Your task to perform on an android device: open app "Walmart Shopping & Grocery" (install if not already installed) and go to login screen Image 0: 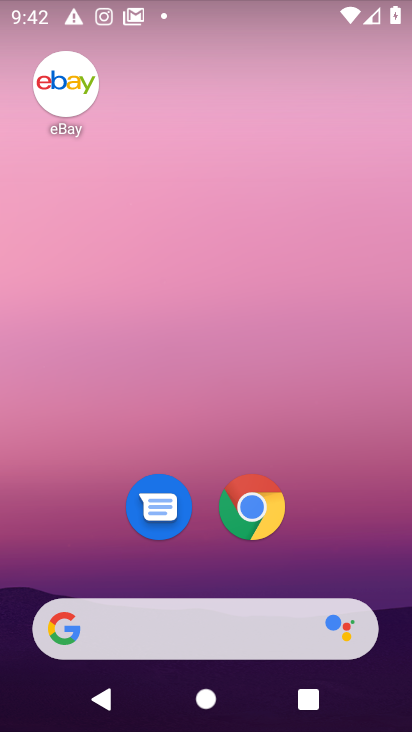
Step 0: drag from (210, 536) to (130, 14)
Your task to perform on an android device: open app "Walmart Shopping & Grocery" (install if not already installed) and go to login screen Image 1: 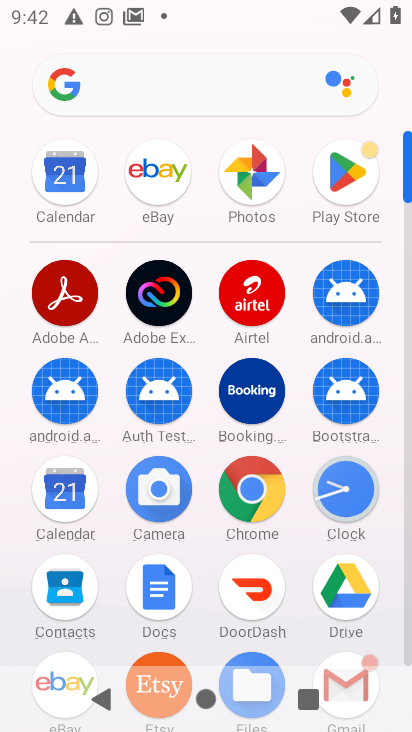
Step 1: click (342, 181)
Your task to perform on an android device: open app "Walmart Shopping & Grocery" (install if not already installed) and go to login screen Image 2: 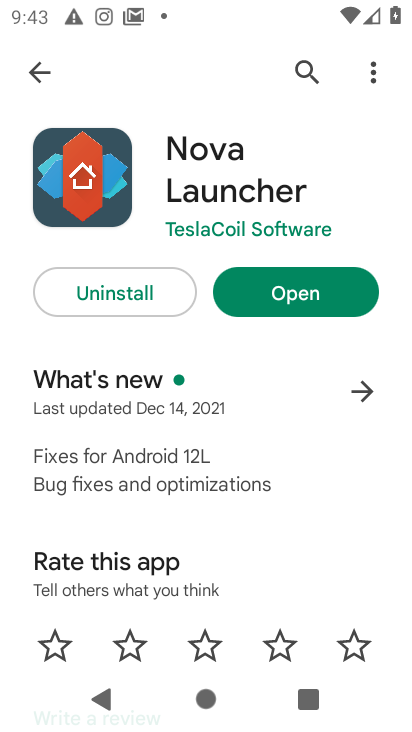
Step 2: click (37, 69)
Your task to perform on an android device: open app "Walmart Shopping & Grocery" (install if not already installed) and go to login screen Image 3: 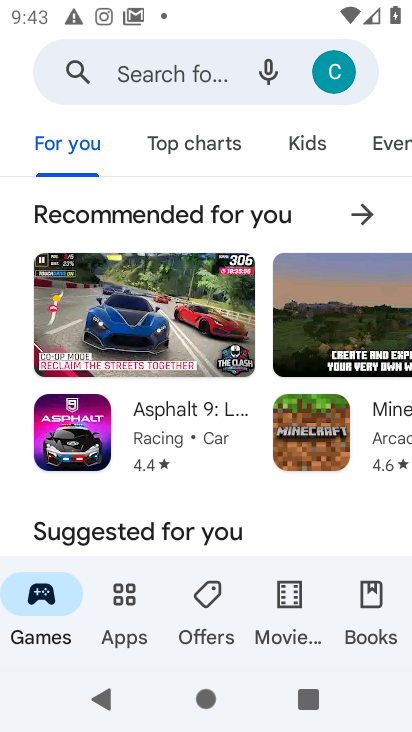
Step 3: click (156, 85)
Your task to perform on an android device: open app "Walmart Shopping & Grocery" (install if not already installed) and go to login screen Image 4: 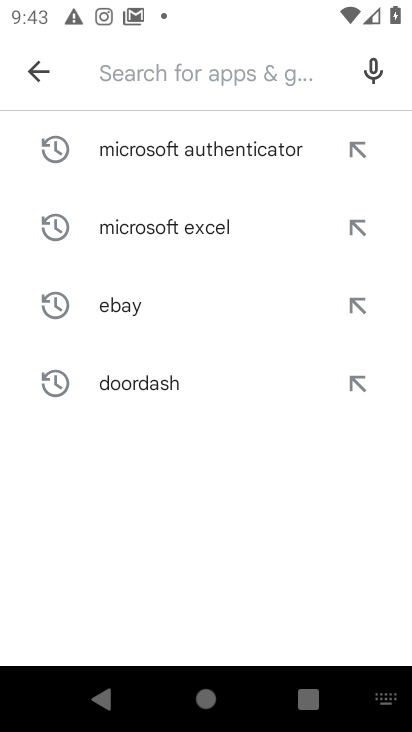
Step 4: type "Walmart Shopping & Grocery"
Your task to perform on an android device: open app "Walmart Shopping & Grocery" (install if not already installed) and go to login screen Image 5: 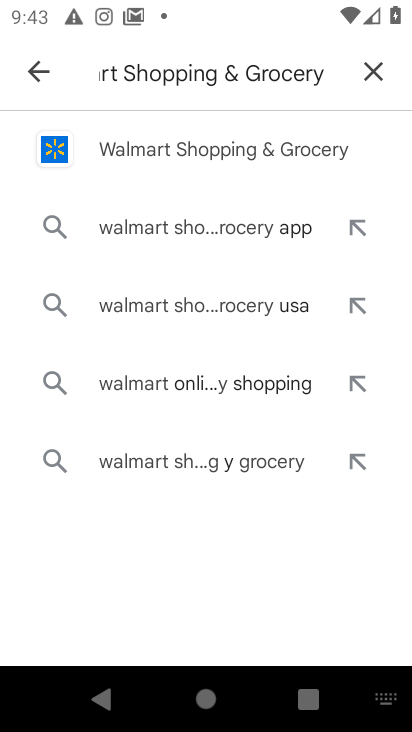
Step 5: click (124, 152)
Your task to perform on an android device: open app "Walmart Shopping & Grocery" (install if not already installed) and go to login screen Image 6: 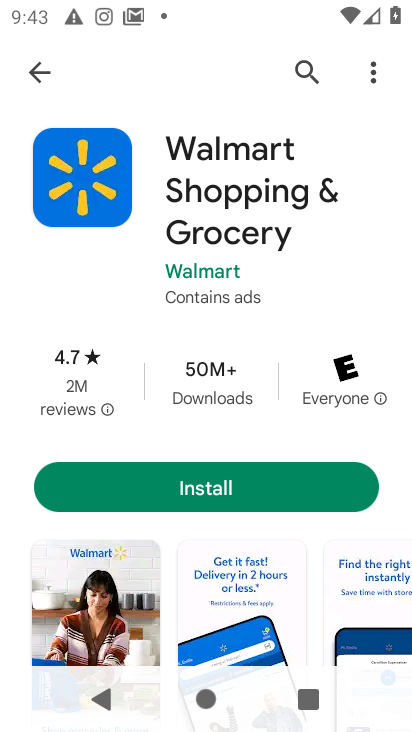
Step 6: click (184, 505)
Your task to perform on an android device: open app "Walmart Shopping & Grocery" (install if not already installed) and go to login screen Image 7: 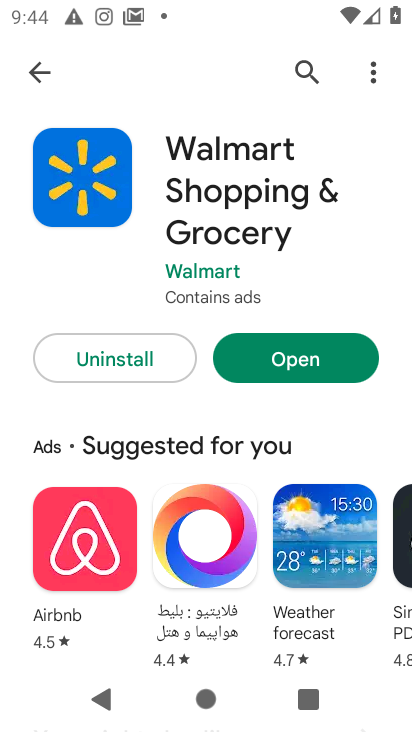
Step 7: click (284, 371)
Your task to perform on an android device: open app "Walmart Shopping & Grocery" (install if not already installed) and go to login screen Image 8: 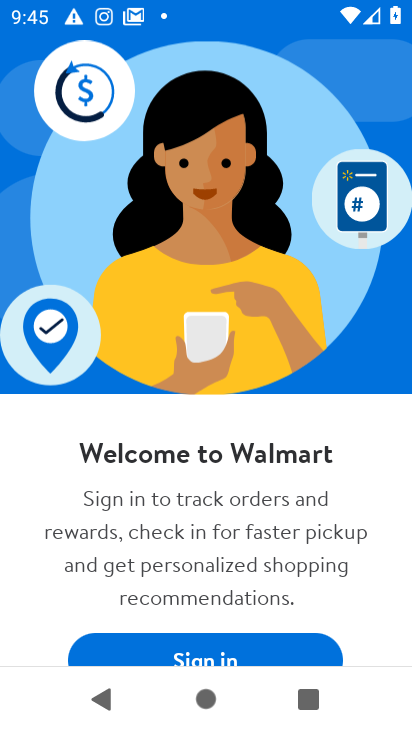
Step 8: click (187, 645)
Your task to perform on an android device: open app "Walmart Shopping & Grocery" (install if not already installed) and go to login screen Image 9: 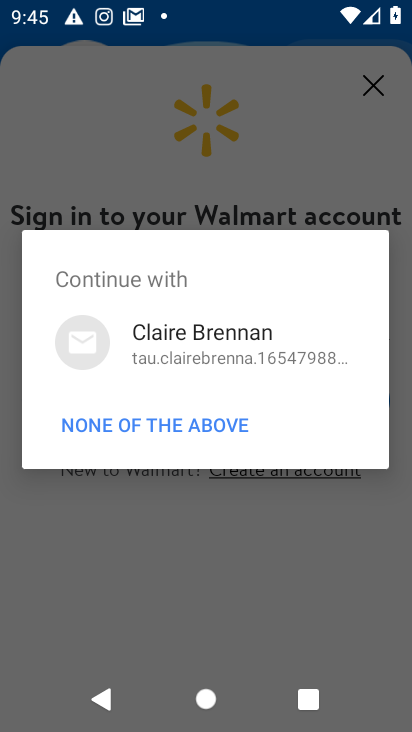
Step 9: task complete